Your task to perform on an android device: open app "Gmail" (install if not already installed) and enter user name: "undecidable@inbox.com" and password: "discouraging" Image 0: 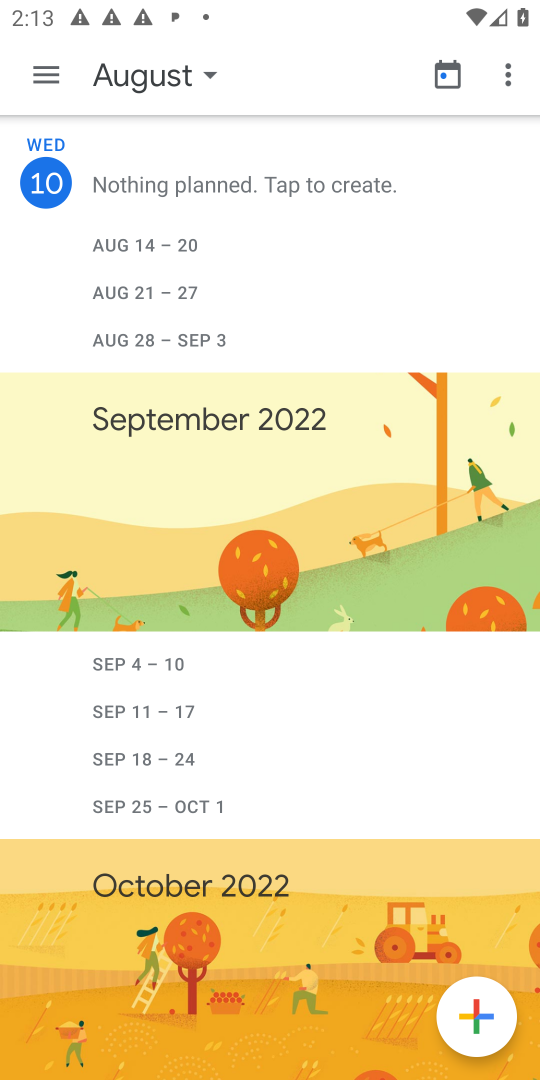
Step 0: press home button
Your task to perform on an android device: open app "Gmail" (install if not already installed) and enter user name: "undecidable@inbox.com" and password: "discouraging" Image 1: 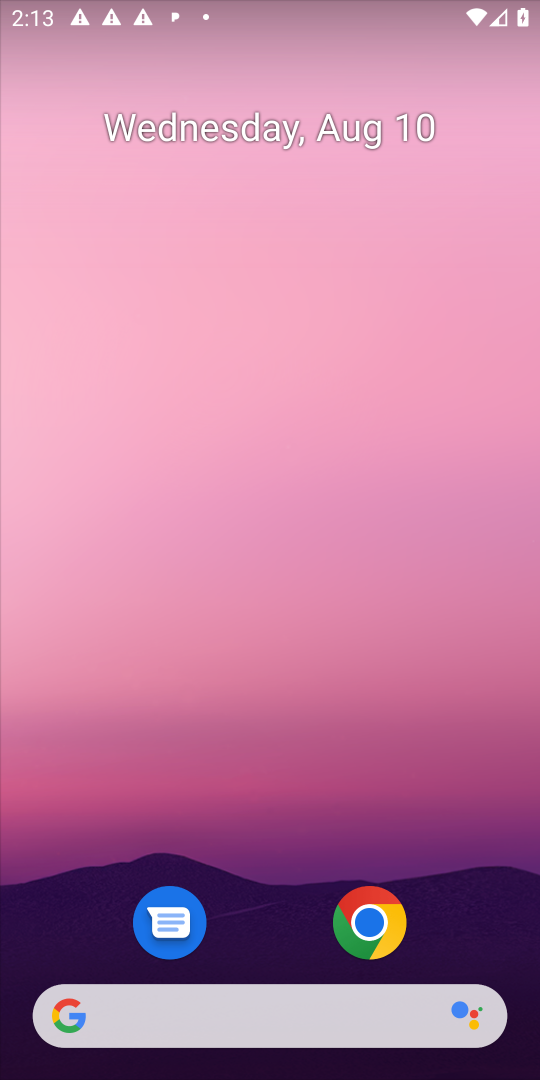
Step 1: drag from (272, 930) to (292, 8)
Your task to perform on an android device: open app "Gmail" (install if not already installed) and enter user name: "undecidable@inbox.com" and password: "discouraging" Image 2: 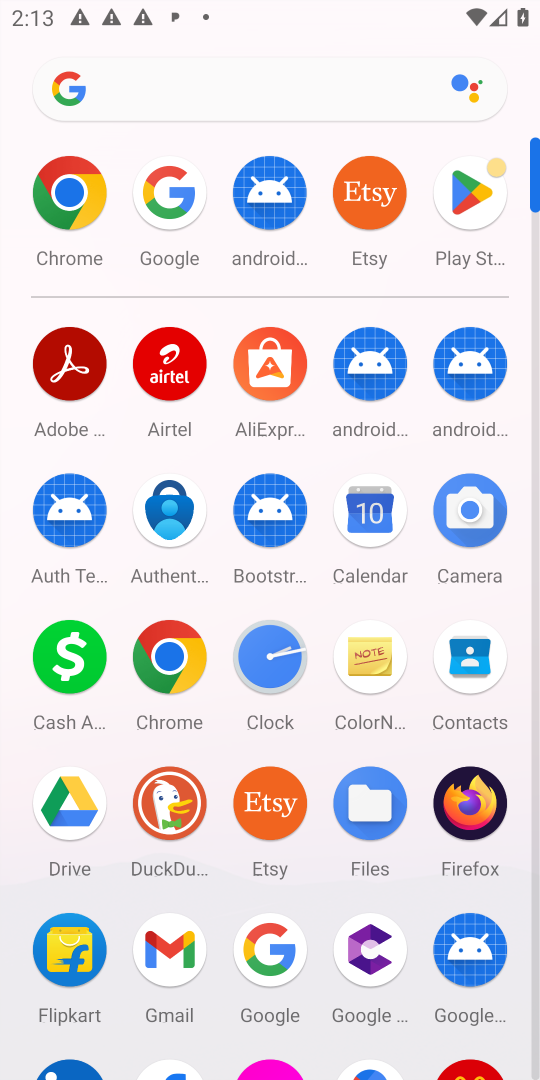
Step 2: click (468, 199)
Your task to perform on an android device: open app "Gmail" (install if not already installed) and enter user name: "undecidable@inbox.com" and password: "discouraging" Image 3: 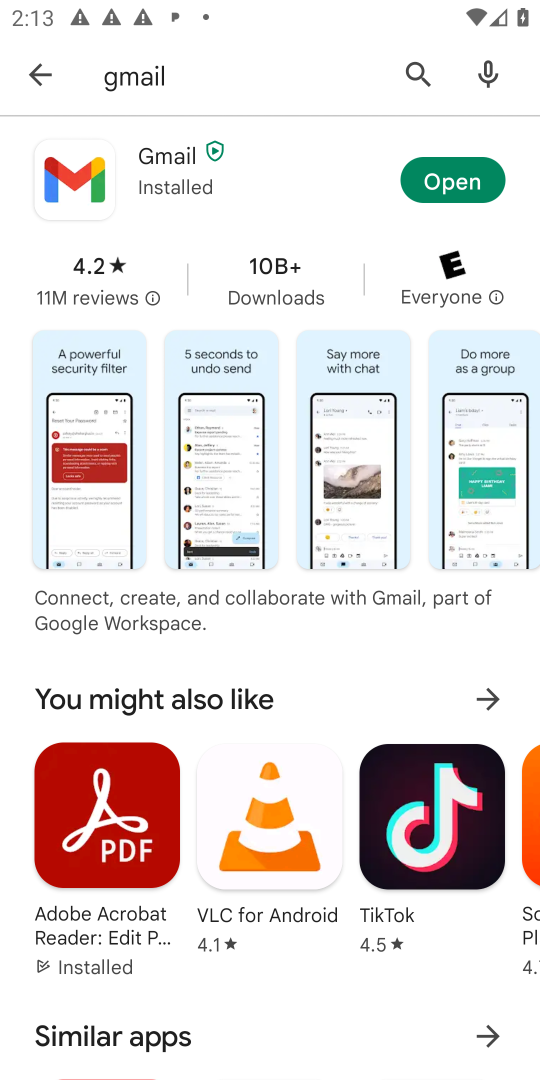
Step 3: click (39, 72)
Your task to perform on an android device: open app "Gmail" (install if not already installed) and enter user name: "undecidable@inbox.com" and password: "discouraging" Image 4: 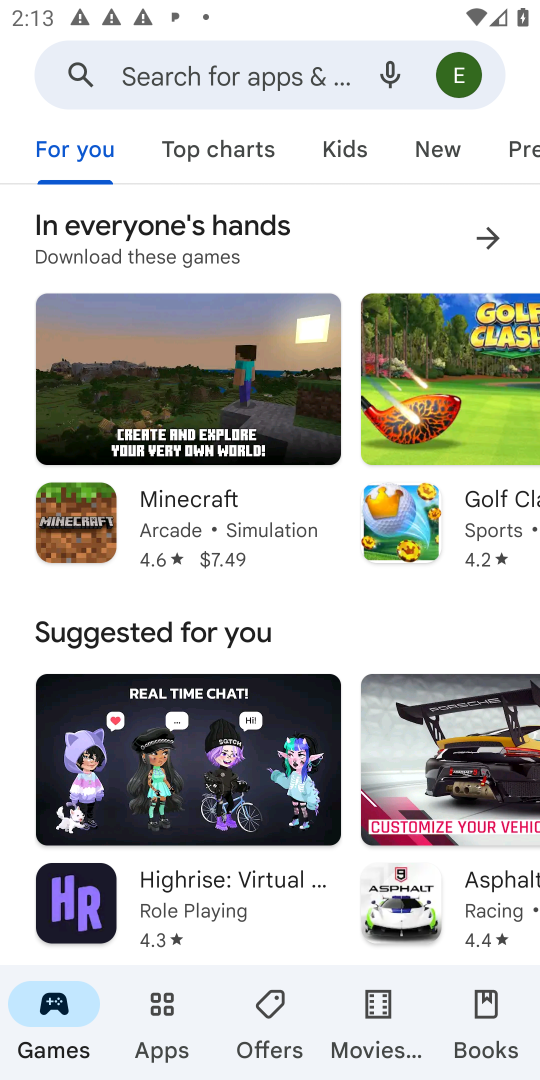
Step 4: click (182, 82)
Your task to perform on an android device: open app "Gmail" (install if not already installed) and enter user name: "undecidable@inbox.com" and password: "discouraging" Image 5: 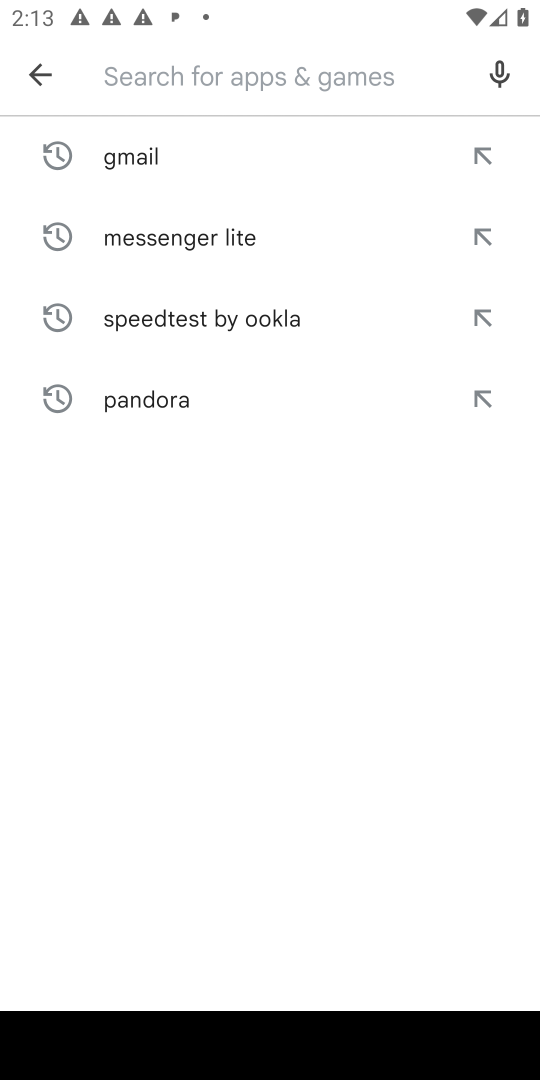
Step 5: click (119, 159)
Your task to perform on an android device: open app "Gmail" (install if not already installed) and enter user name: "undecidable@inbox.com" and password: "discouraging" Image 6: 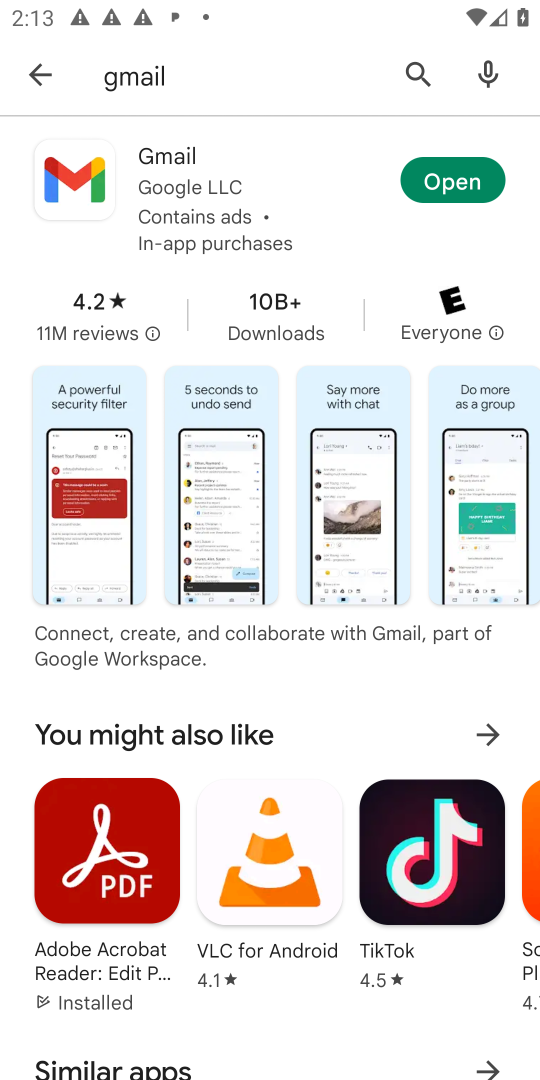
Step 6: click (440, 179)
Your task to perform on an android device: open app "Gmail" (install if not already installed) and enter user name: "undecidable@inbox.com" and password: "discouraging" Image 7: 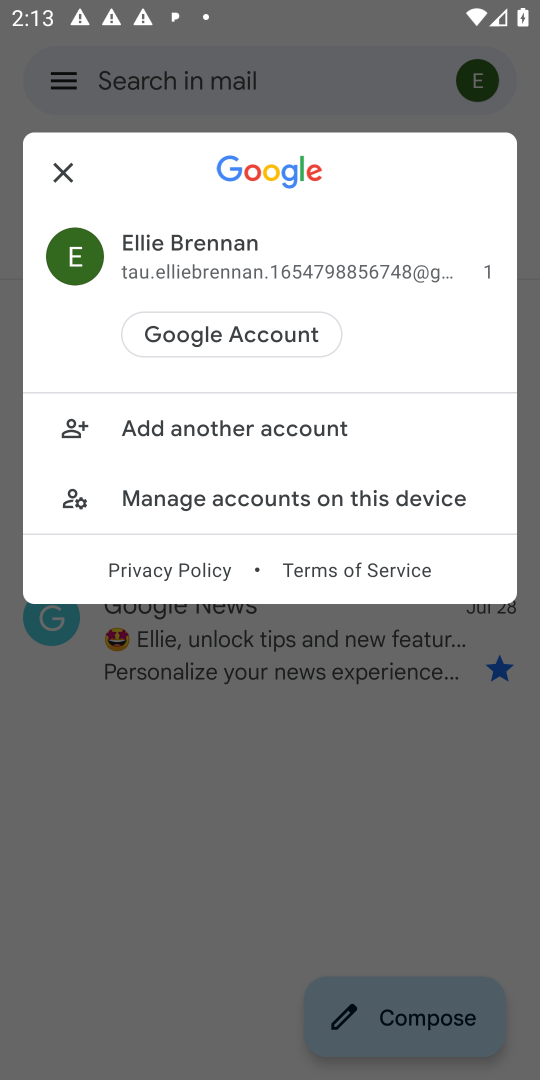
Step 7: click (252, 413)
Your task to perform on an android device: open app "Gmail" (install if not already installed) and enter user name: "undecidable@inbox.com" and password: "discouraging" Image 8: 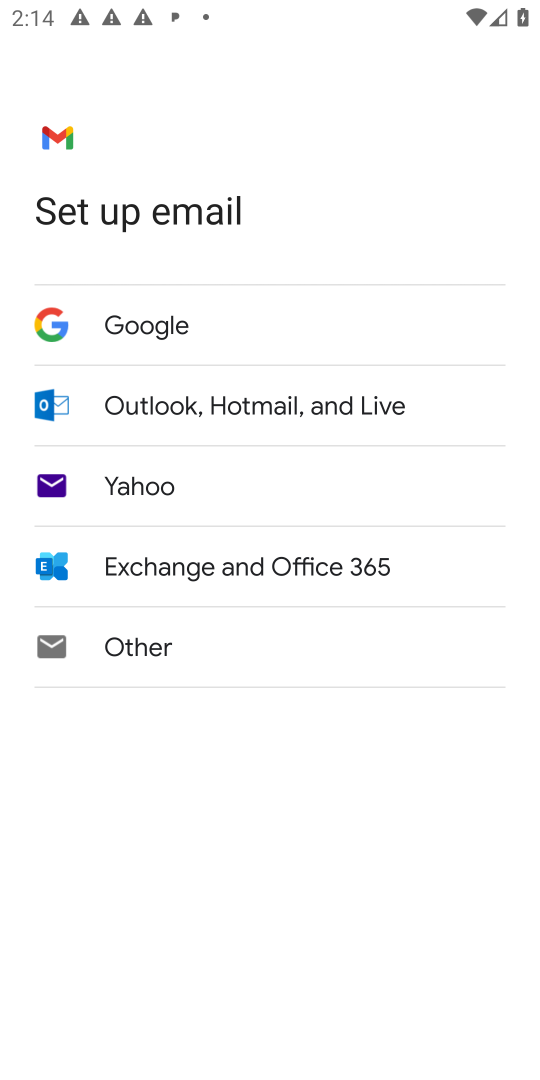
Step 8: click (130, 312)
Your task to perform on an android device: open app "Gmail" (install if not already installed) and enter user name: "undecidable@inbox.com" and password: "discouraging" Image 9: 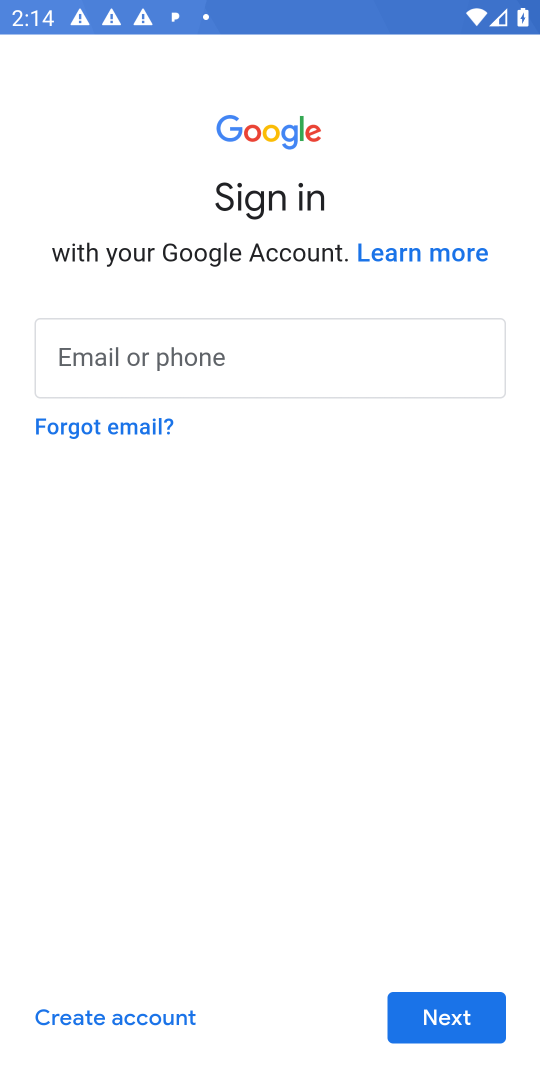
Step 9: click (305, 361)
Your task to perform on an android device: open app "Gmail" (install if not already installed) and enter user name: "undecidable@inbox.com" and password: "discouraging" Image 10: 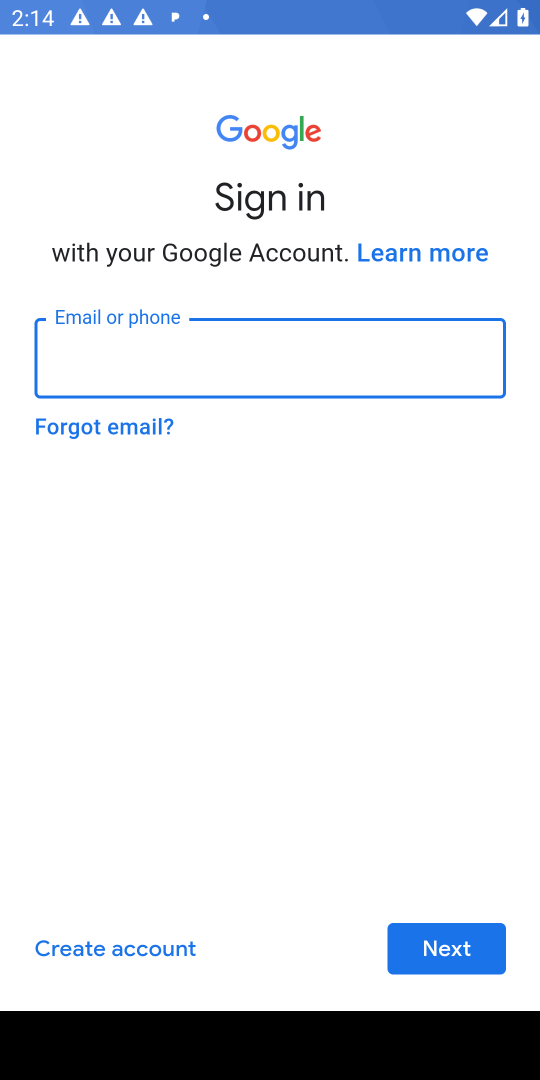
Step 10: type "undecidable@inbox.com"
Your task to perform on an android device: open app "Gmail" (install if not already installed) and enter user name: "undecidable@inbox.com" and password: "discouraging" Image 11: 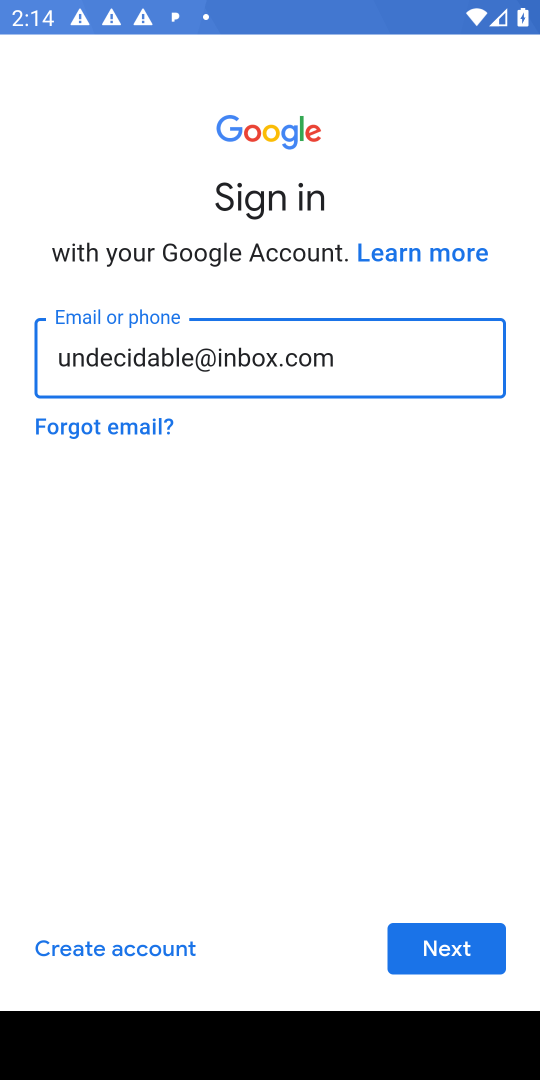
Step 11: click (476, 964)
Your task to perform on an android device: open app "Gmail" (install if not already installed) and enter user name: "undecidable@inbox.com" and password: "discouraging" Image 12: 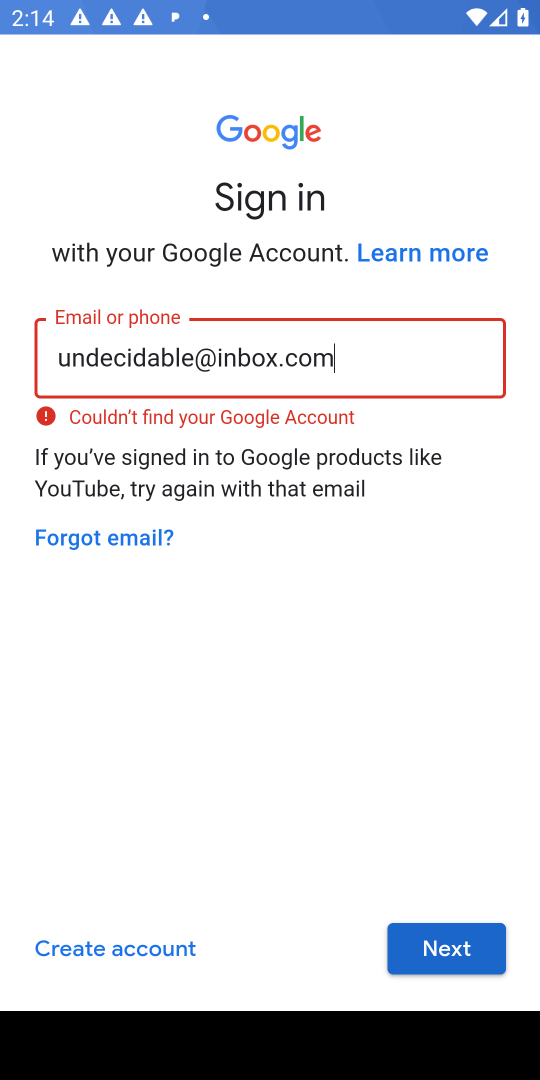
Step 12: task complete